Your task to perform on an android device: Open the calendar app, open the side menu, and click the "Day" option Image 0: 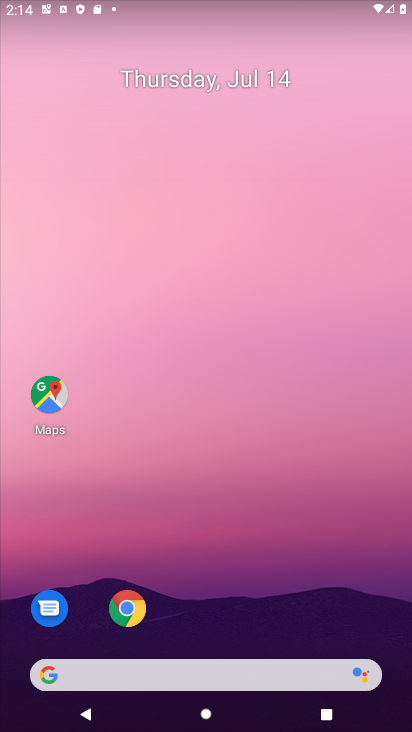
Step 0: drag from (364, 653) to (336, 204)
Your task to perform on an android device: Open the calendar app, open the side menu, and click the "Day" option Image 1: 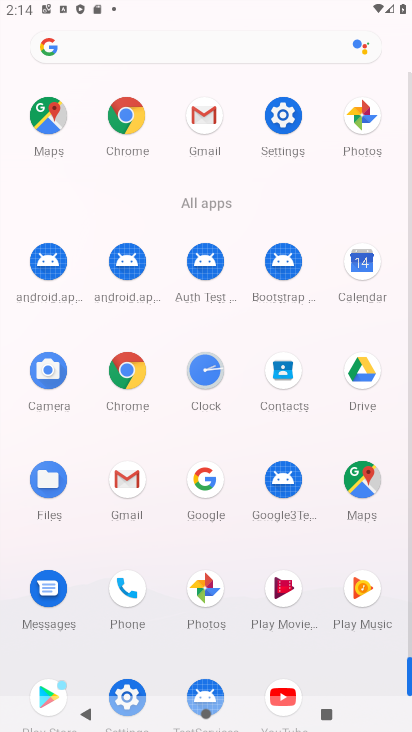
Step 1: click (360, 260)
Your task to perform on an android device: Open the calendar app, open the side menu, and click the "Day" option Image 2: 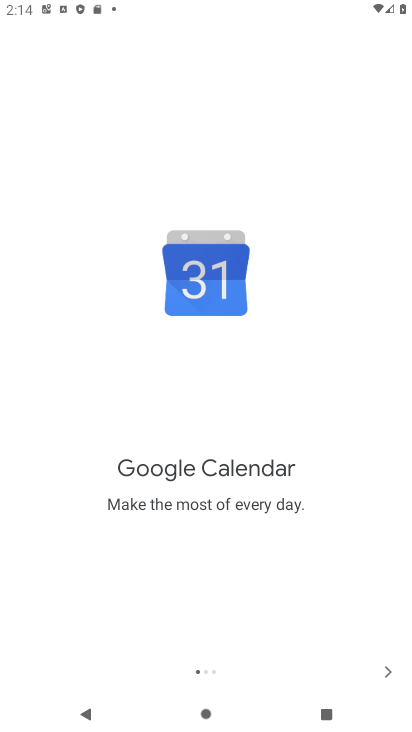
Step 2: click (386, 673)
Your task to perform on an android device: Open the calendar app, open the side menu, and click the "Day" option Image 3: 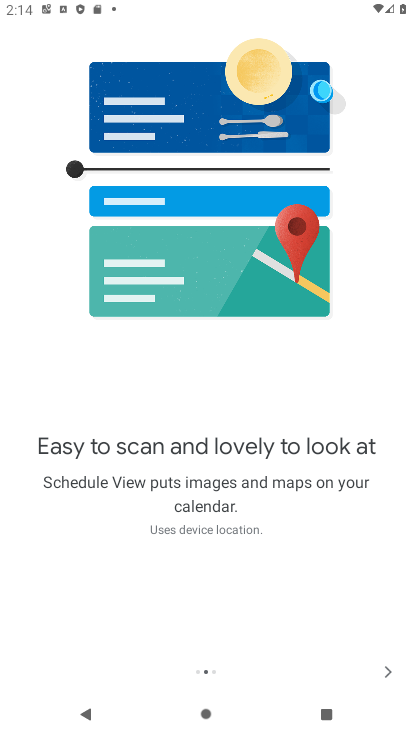
Step 3: click (386, 673)
Your task to perform on an android device: Open the calendar app, open the side menu, and click the "Day" option Image 4: 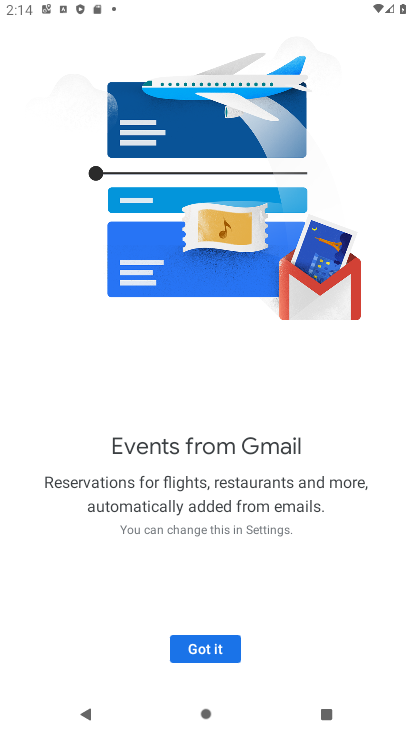
Step 4: click (202, 649)
Your task to perform on an android device: Open the calendar app, open the side menu, and click the "Day" option Image 5: 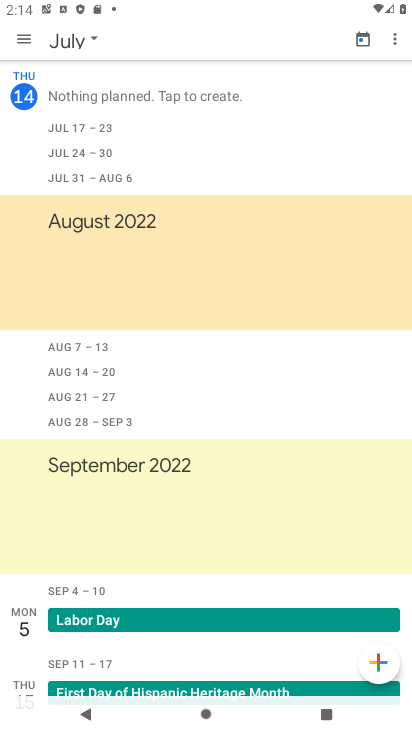
Step 5: click (25, 39)
Your task to perform on an android device: Open the calendar app, open the side menu, and click the "Day" option Image 6: 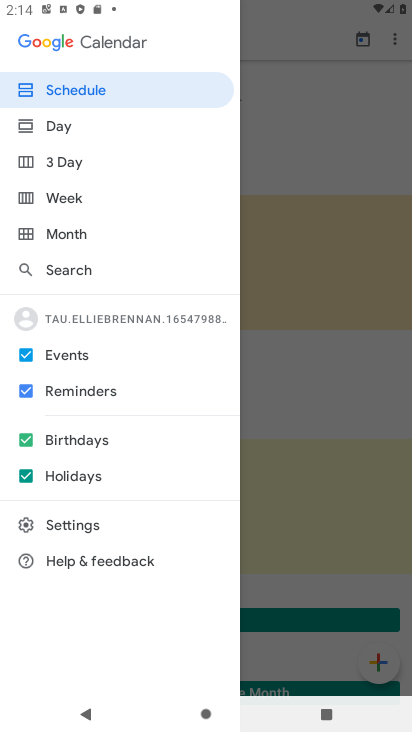
Step 6: click (55, 129)
Your task to perform on an android device: Open the calendar app, open the side menu, and click the "Day" option Image 7: 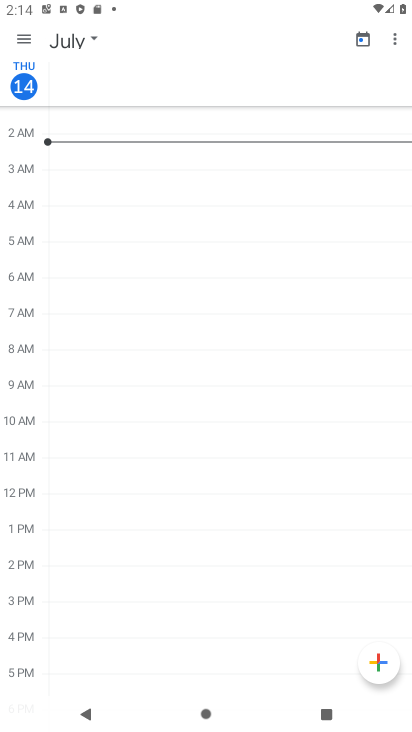
Step 7: task complete